Your task to perform on an android device: see tabs open on other devices in the chrome app Image 0: 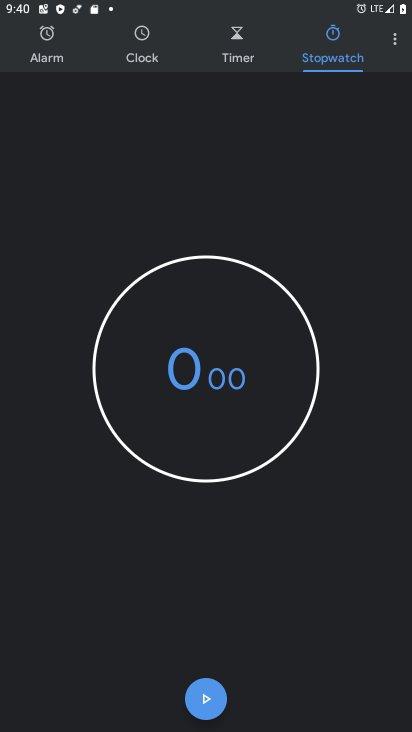
Step 0: press home button
Your task to perform on an android device: see tabs open on other devices in the chrome app Image 1: 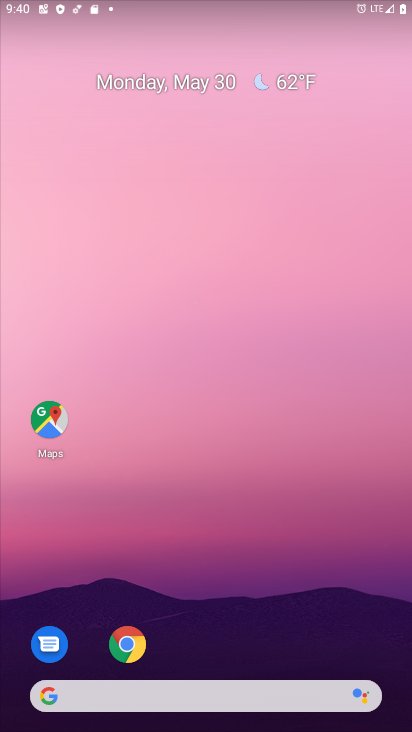
Step 1: click (133, 648)
Your task to perform on an android device: see tabs open on other devices in the chrome app Image 2: 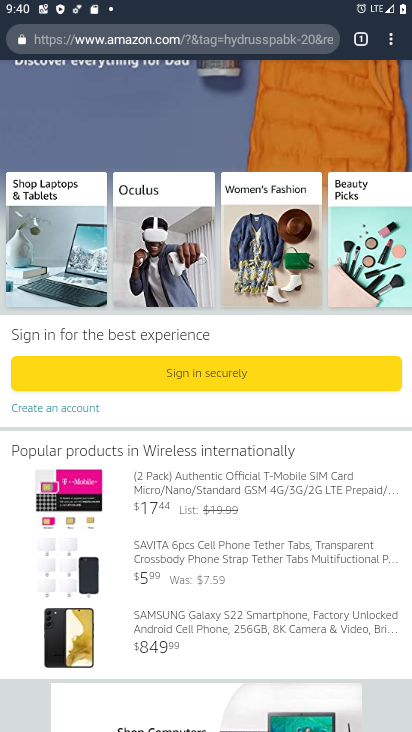
Step 2: click (392, 43)
Your task to perform on an android device: see tabs open on other devices in the chrome app Image 3: 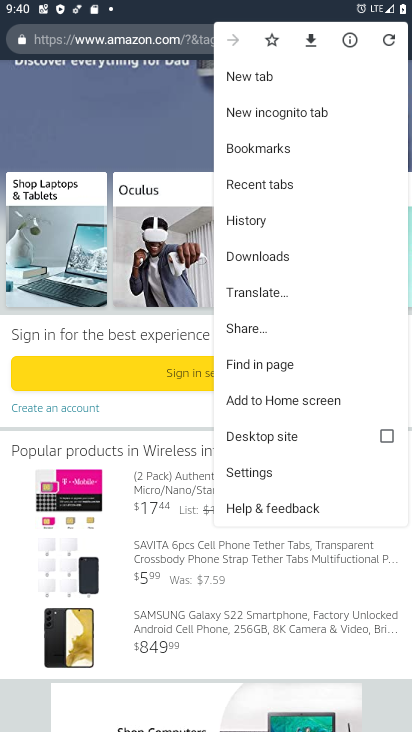
Step 3: click (262, 182)
Your task to perform on an android device: see tabs open on other devices in the chrome app Image 4: 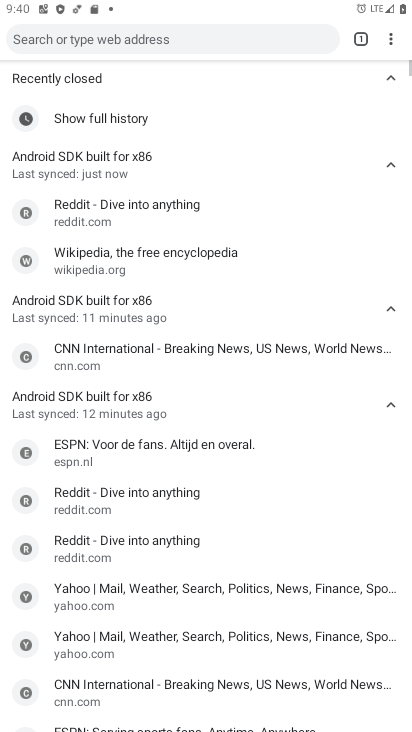
Step 4: task complete